Your task to perform on an android device: Open my contact list Image 0: 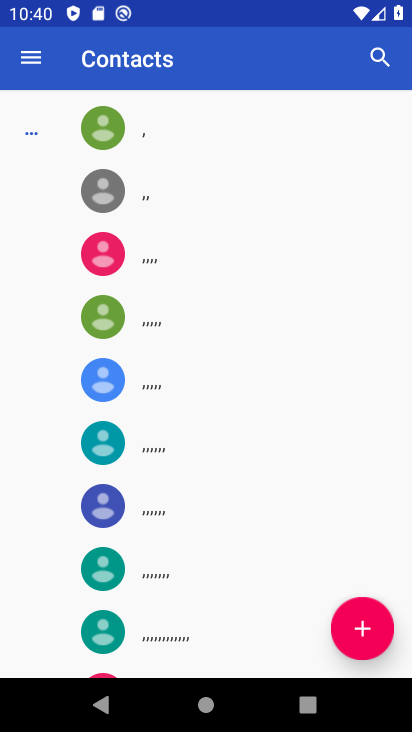
Step 0: drag from (195, 181) to (187, 565)
Your task to perform on an android device: Open my contact list Image 1: 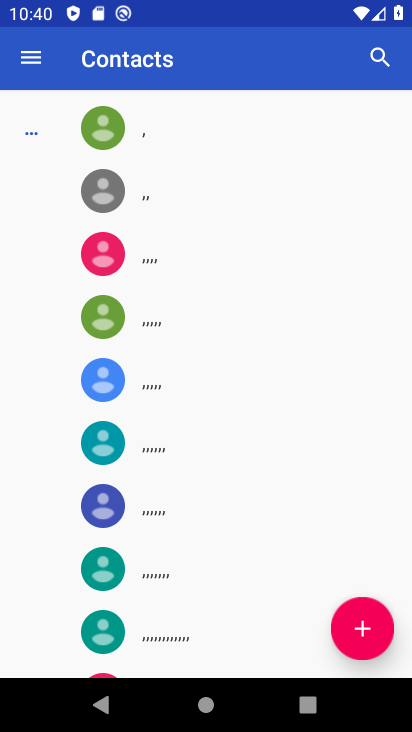
Step 1: task complete